Your task to perform on an android device: turn off smart reply in the gmail app Image 0: 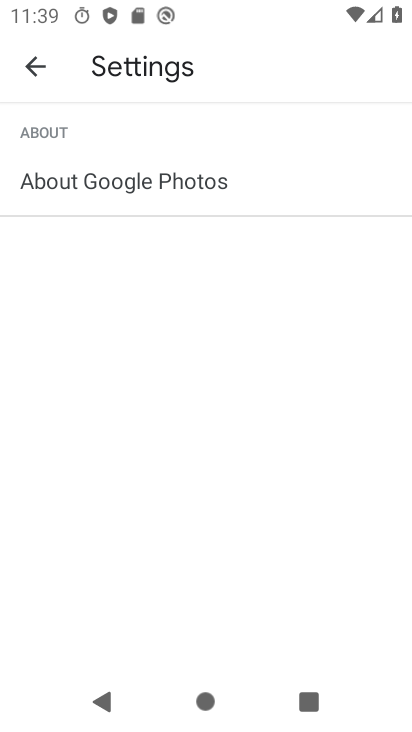
Step 0: press home button
Your task to perform on an android device: turn off smart reply in the gmail app Image 1: 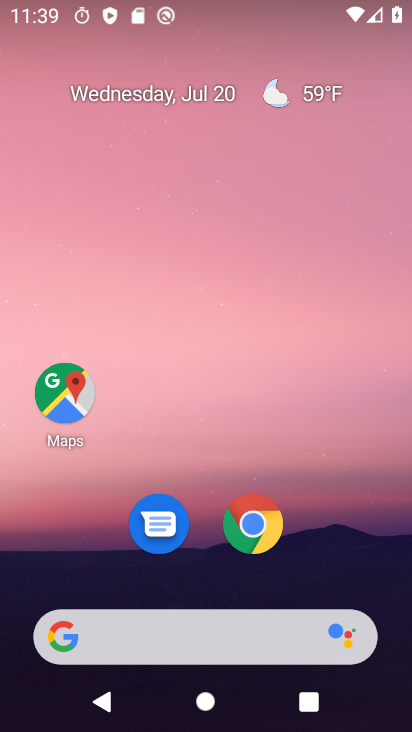
Step 1: drag from (221, 635) to (316, 155)
Your task to perform on an android device: turn off smart reply in the gmail app Image 2: 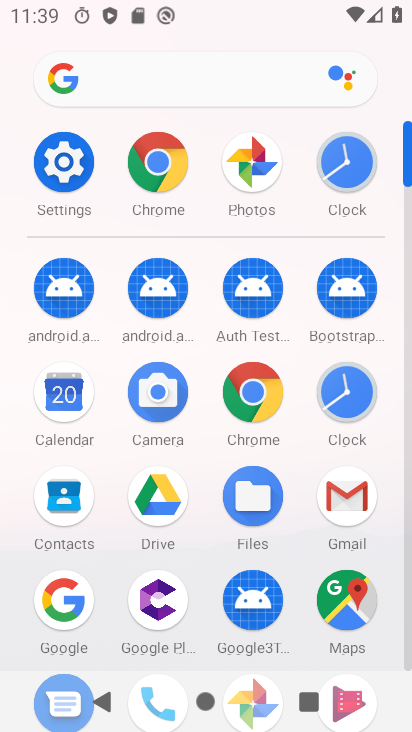
Step 2: click (339, 501)
Your task to perform on an android device: turn off smart reply in the gmail app Image 3: 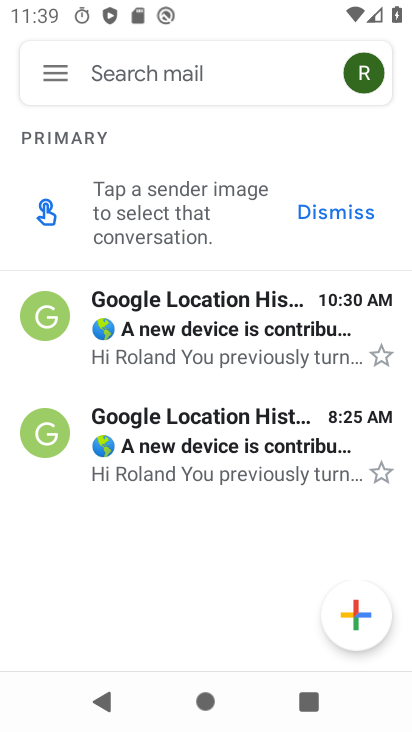
Step 3: click (52, 73)
Your task to perform on an android device: turn off smart reply in the gmail app Image 4: 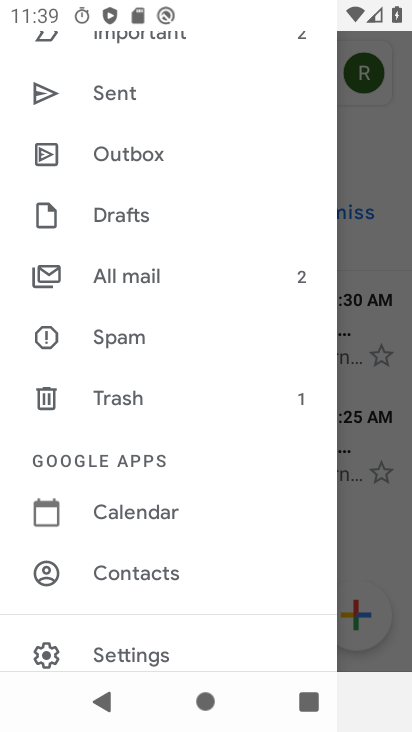
Step 4: click (148, 650)
Your task to perform on an android device: turn off smart reply in the gmail app Image 5: 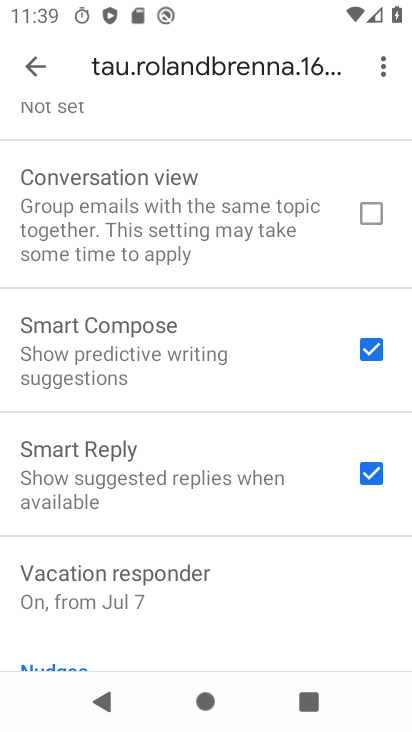
Step 5: click (370, 469)
Your task to perform on an android device: turn off smart reply in the gmail app Image 6: 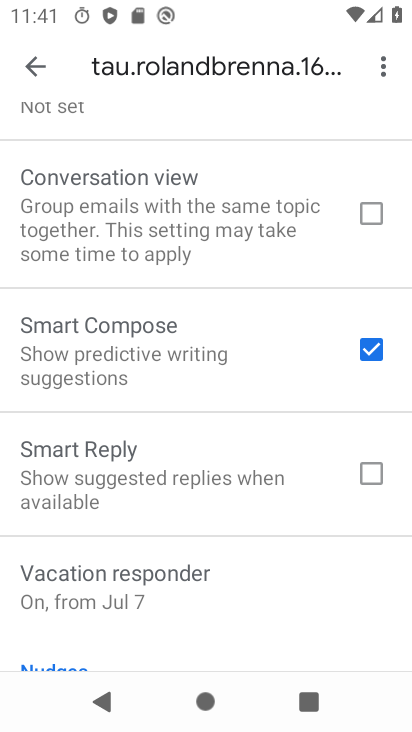
Step 6: task complete